Your task to perform on an android device: open app "Cash App" (install if not already installed) Image 0: 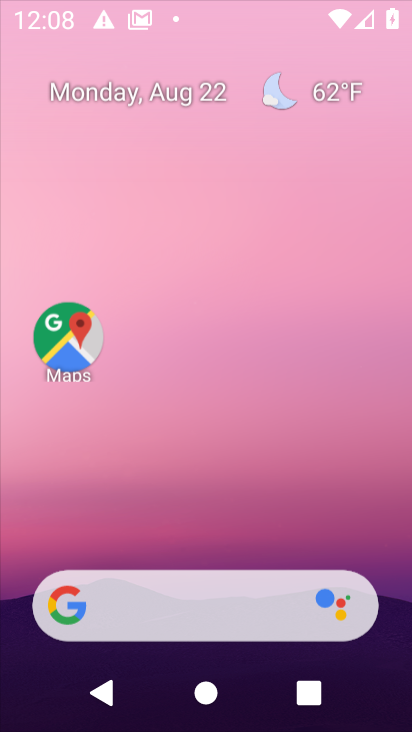
Step 0: click (393, 575)
Your task to perform on an android device: open app "Cash App" (install if not already installed) Image 1: 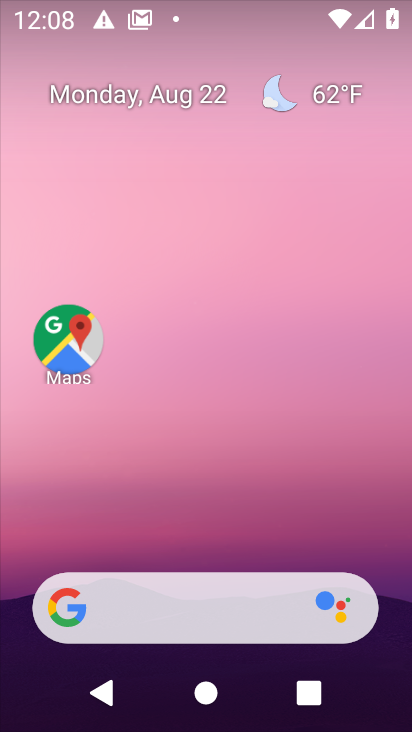
Step 1: drag from (185, 477) to (205, 257)
Your task to perform on an android device: open app "Cash App" (install if not already installed) Image 2: 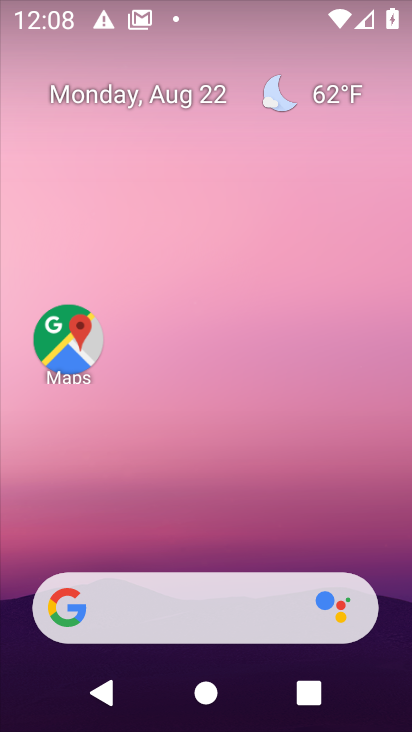
Step 2: drag from (197, 511) to (197, 13)
Your task to perform on an android device: open app "Cash App" (install if not already installed) Image 3: 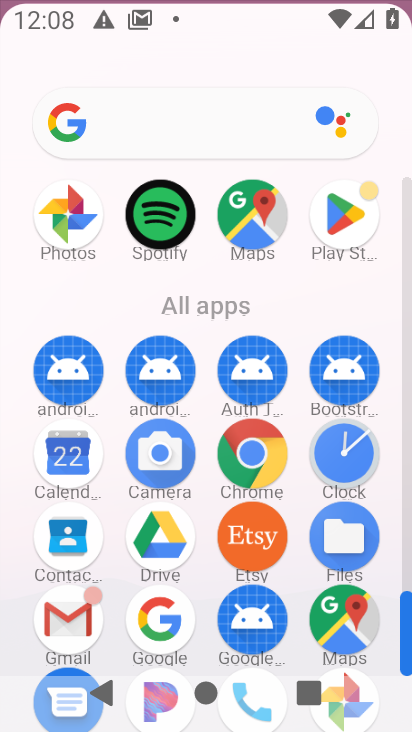
Step 3: click (338, 211)
Your task to perform on an android device: open app "Cash App" (install if not already installed) Image 4: 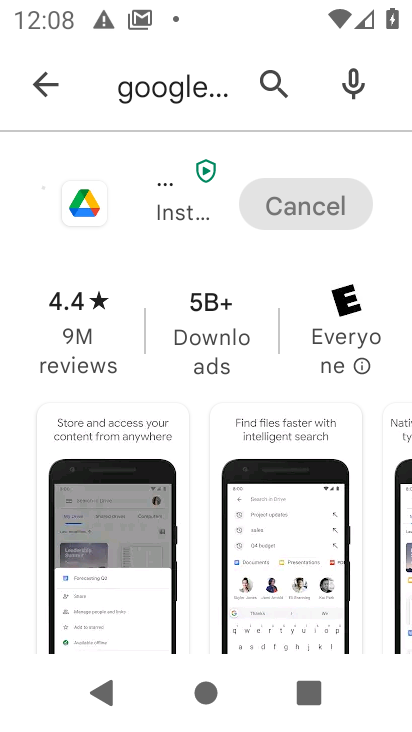
Step 4: click (45, 79)
Your task to perform on an android device: open app "Cash App" (install if not already installed) Image 5: 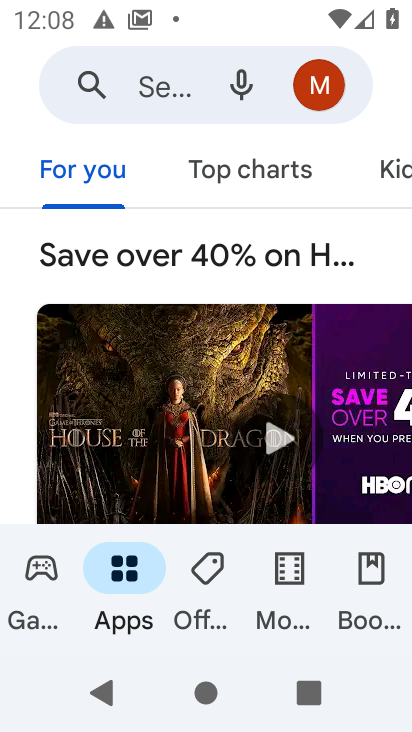
Step 5: click (131, 89)
Your task to perform on an android device: open app "Cash App" (install if not already installed) Image 6: 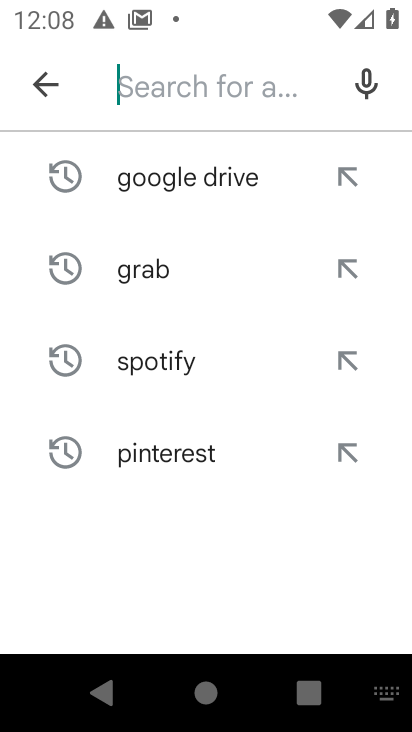
Step 6: type "Cash App"
Your task to perform on an android device: open app "Cash App" (install if not already installed) Image 7: 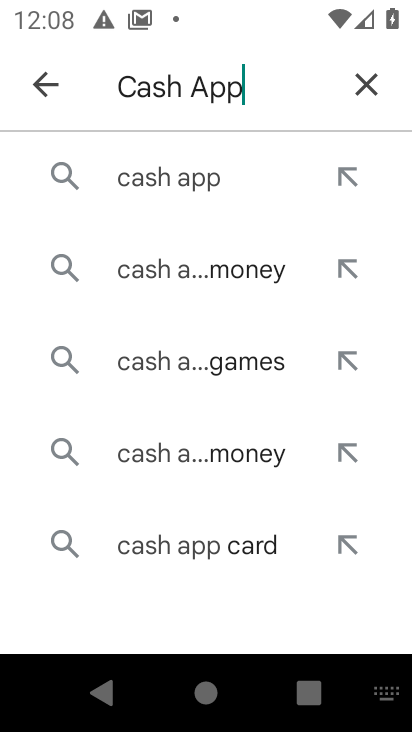
Step 7: click (138, 178)
Your task to perform on an android device: open app "Cash App" (install if not already installed) Image 8: 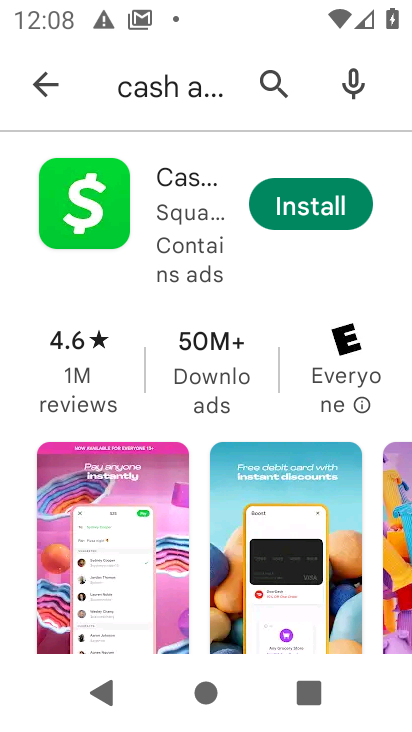
Step 8: click (293, 200)
Your task to perform on an android device: open app "Cash App" (install if not already installed) Image 9: 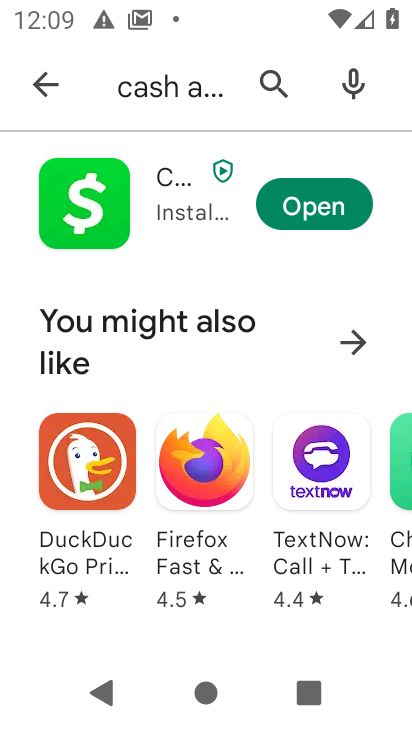
Step 9: click (322, 193)
Your task to perform on an android device: open app "Cash App" (install if not already installed) Image 10: 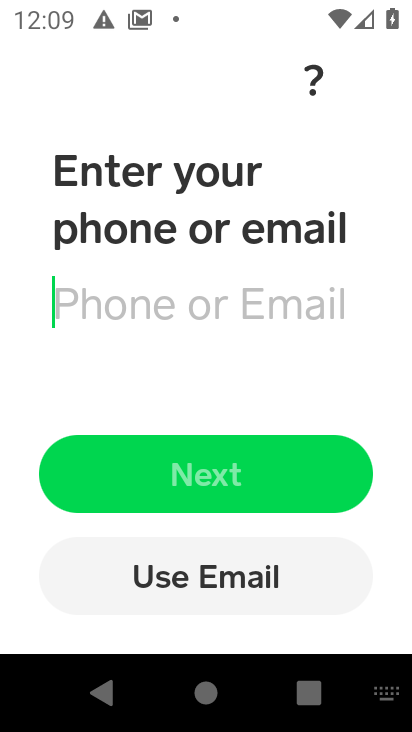
Step 10: task complete